Your task to perform on an android device: turn on improve location accuracy Image 0: 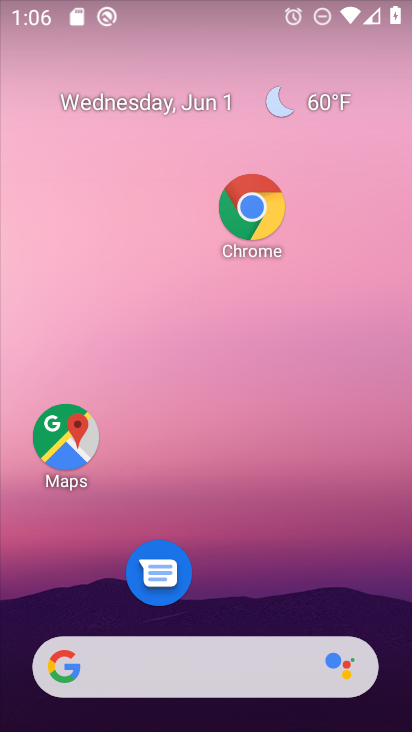
Step 0: drag from (217, 608) to (154, 154)
Your task to perform on an android device: turn on improve location accuracy Image 1: 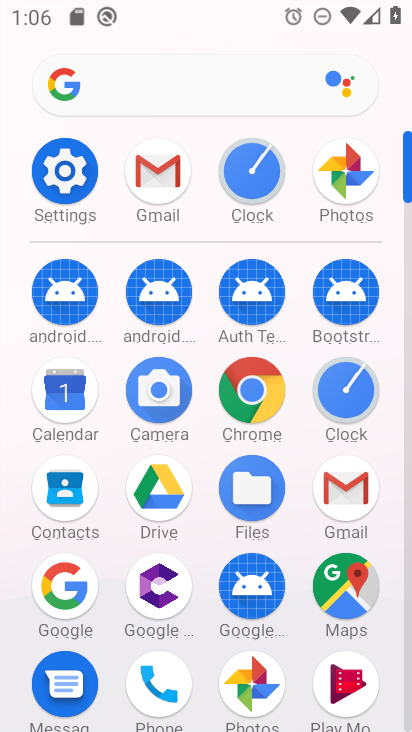
Step 1: click (64, 187)
Your task to perform on an android device: turn on improve location accuracy Image 2: 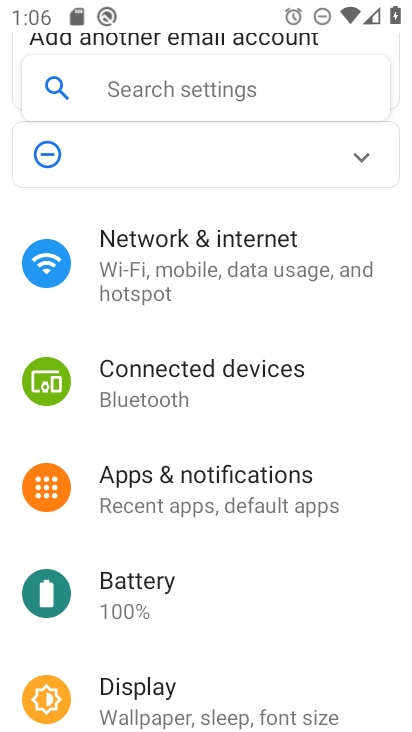
Step 2: drag from (209, 546) to (223, 227)
Your task to perform on an android device: turn on improve location accuracy Image 3: 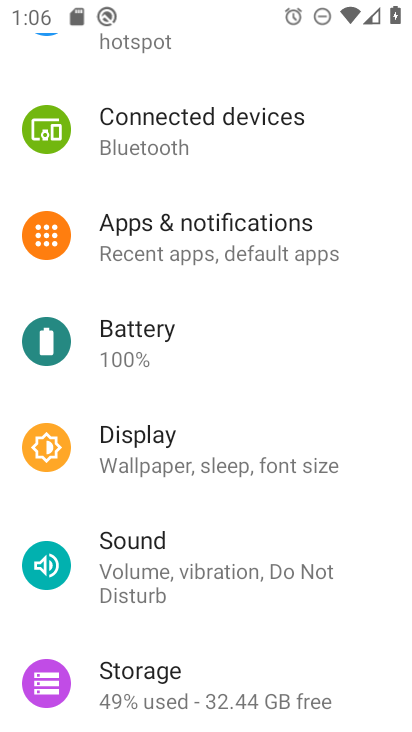
Step 3: drag from (193, 623) to (219, 293)
Your task to perform on an android device: turn on improve location accuracy Image 4: 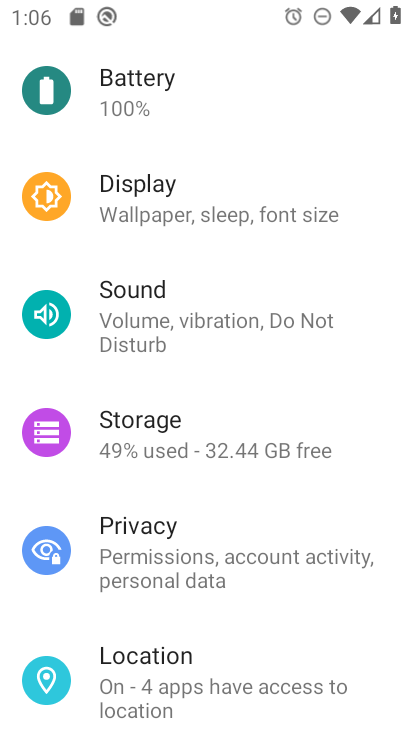
Step 4: click (210, 651)
Your task to perform on an android device: turn on improve location accuracy Image 5: 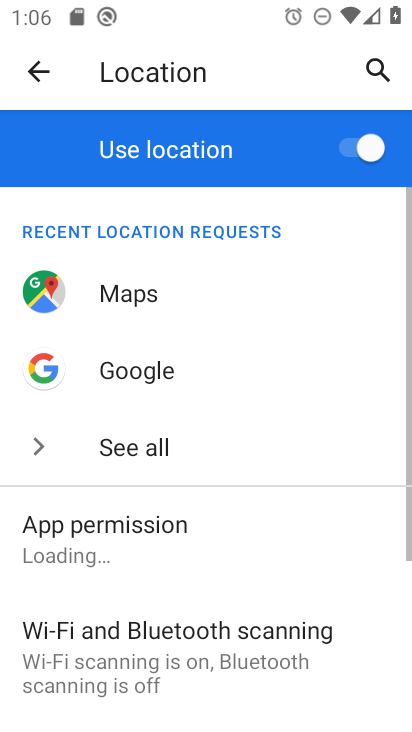
Step 5: drag from (201, 626) to (200, 230)
Your task to perform on an android device: turn on improve location accuracy Image 6: 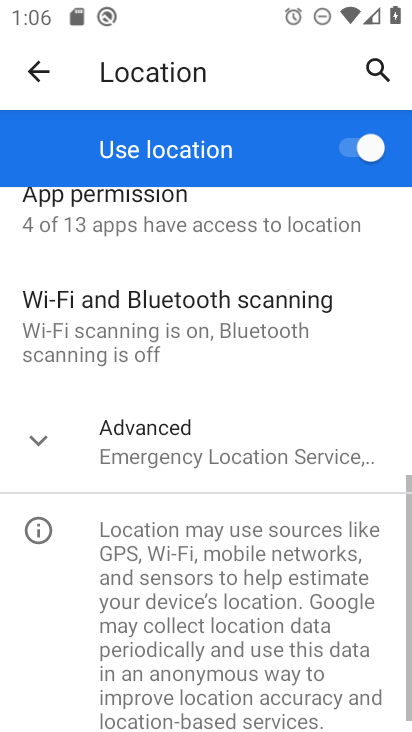
Step 6: click (200, 524)
Your task to perform on an android device: turn on improve location accuracy Image 7: 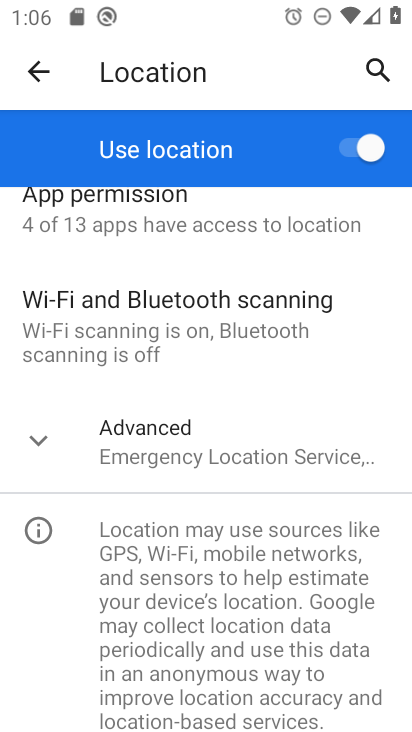
Step 7: click (199, 455)
Your task to perform on an android device: turn on improve location accuracy Image 8: 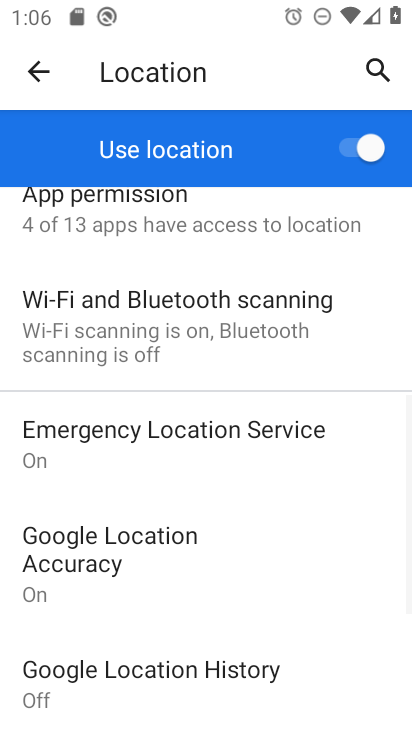
Step 8: click (172, 565)
Your task to perform on an android device: turn on improve location accuracy Image 9: 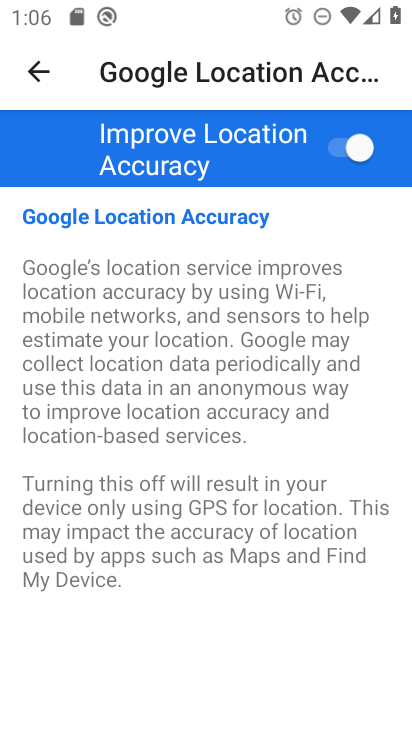
Step 9: task complete